Your task to perform on an android device: Is it going to rain this weekend? Image 0: 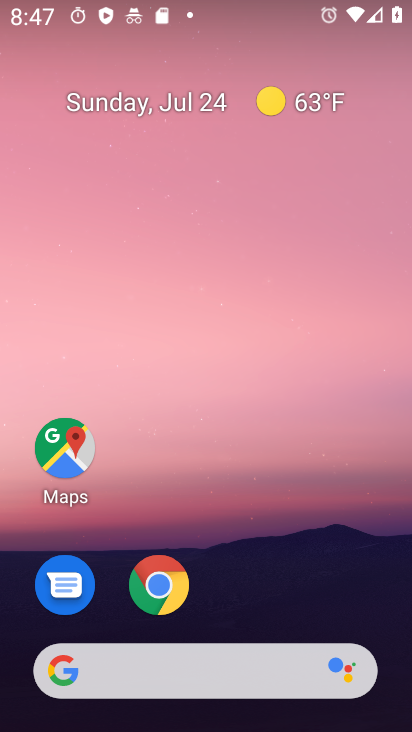
Step 0: drag from (239, 614) to (301, 273)
Your task to perform on an android device: Is it going to rain this weekend? Image 1: 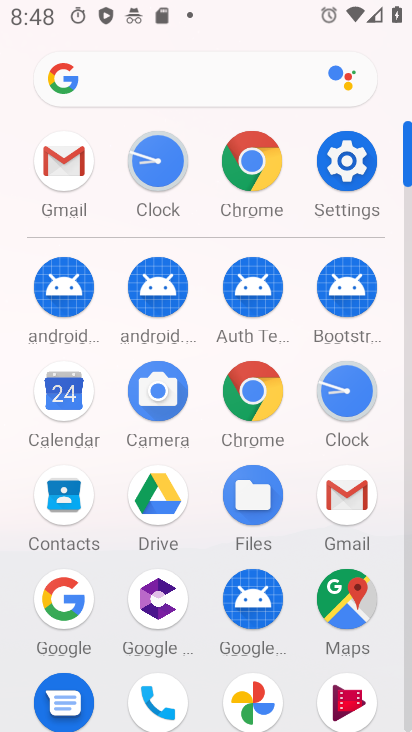
Step 1: drag from (200, 598) to (237, 302)
Your task to perform on an android device: Is it going to rain this weekend? Image 2: 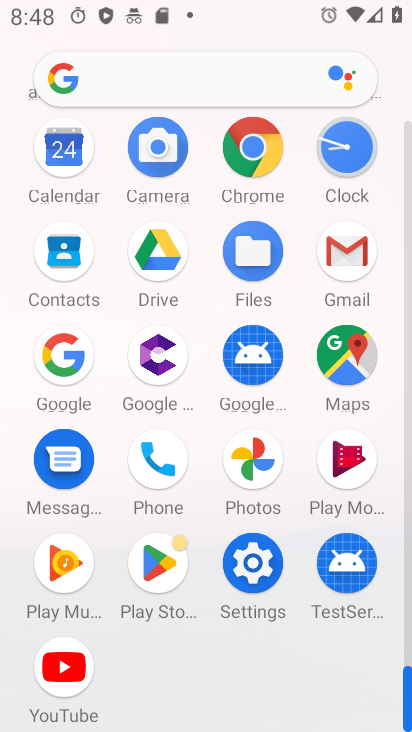
Step 2: drag from (208, 509) to (186, 683)
Your task to perform on an android device: Is it going to rain this weekend? Image 3: 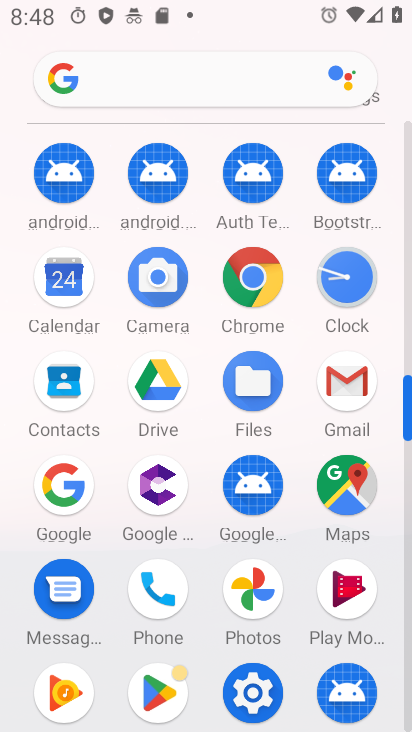
Step 3: click (67, 483)
Your task to perform on an android device: Is it going to rain this weekend? Image 4: 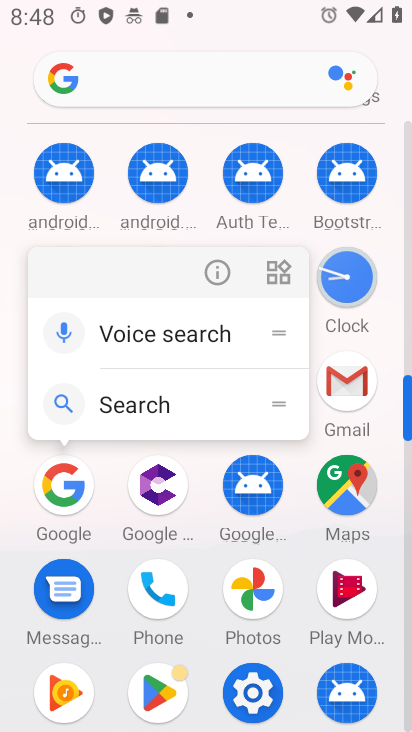
Step 4: click (61, 478)
Your task to perform on an android device: Is it going to rain this weekend? Image 5: 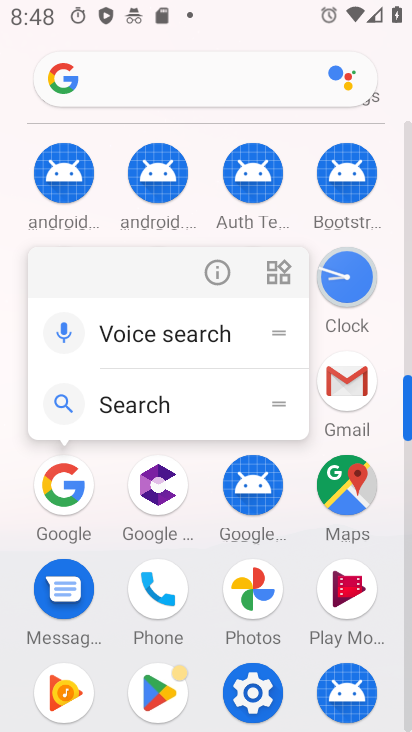
Step 5: click (59, 478)
Your task to perform on an android device: Is it going to rain this weekend? Image 6: 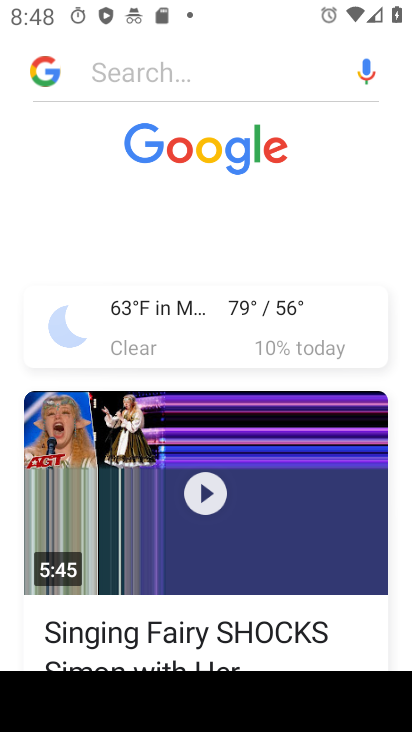
Step 6: click (146, 80)
Your task to perform on an android device: Is it going to rain this weekend? Image 7: 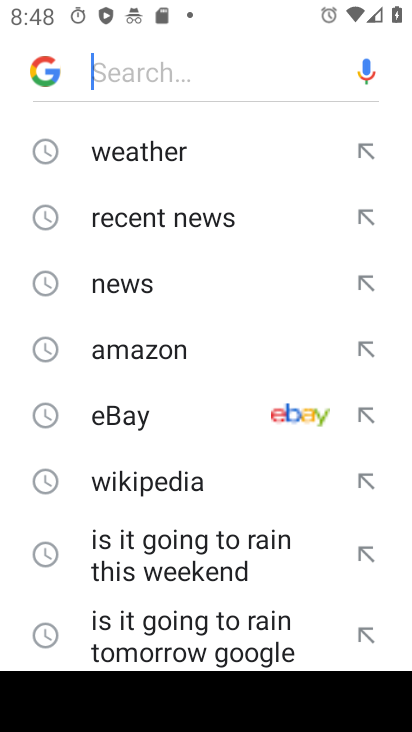
Step 7: click (112, 159)
Your task to perform on an android device: Is it going to rain this weekend? Image 8: 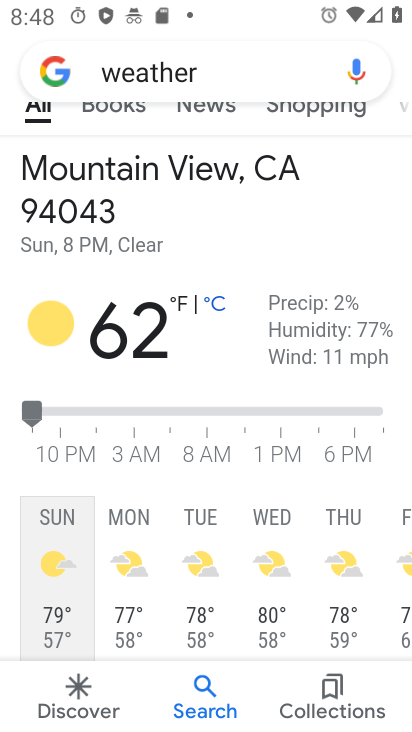
Step 8: task complete